Your task to perform on an android device: Turn on the flashlight Image 0: 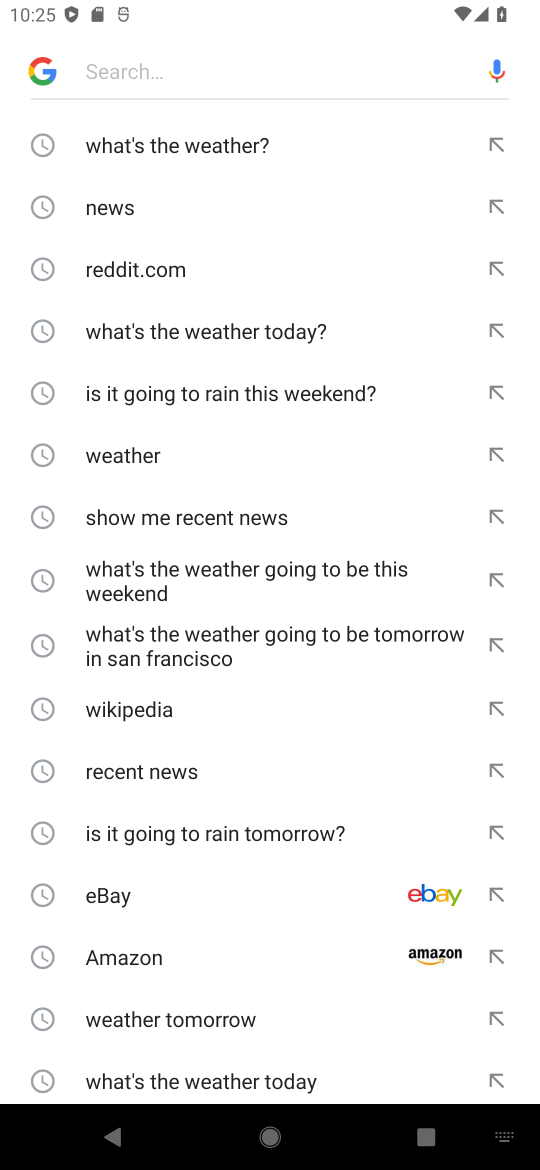
Step 0: press home button
Your task to perform on an android device: Turn on the flashlight Image 1: 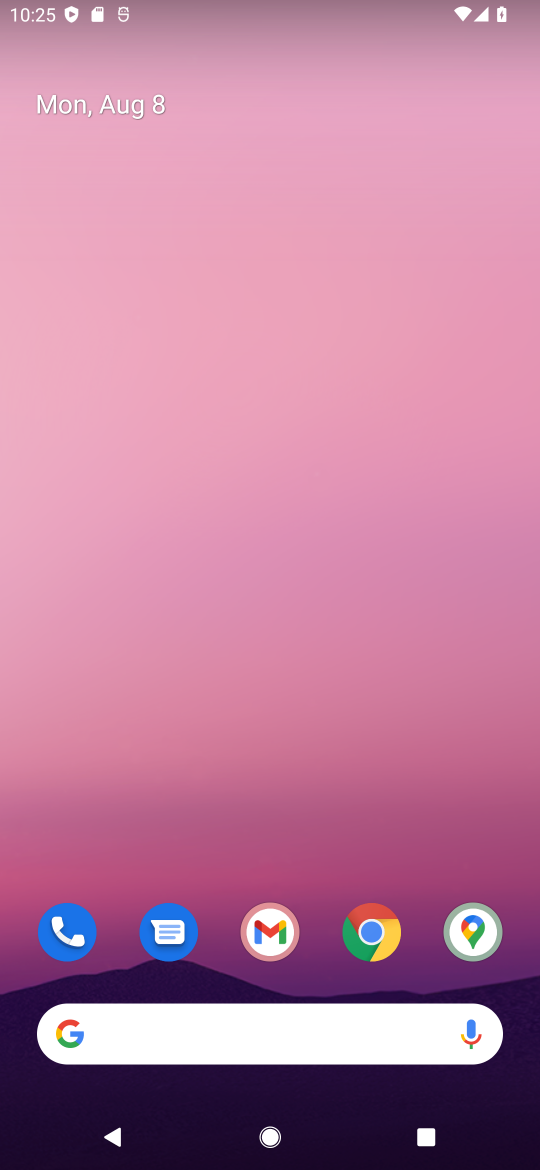
Step 1: drag from (337, 873) to (303, 103)
Your task to perform on an android device: Turn on the flashlight Image 2: 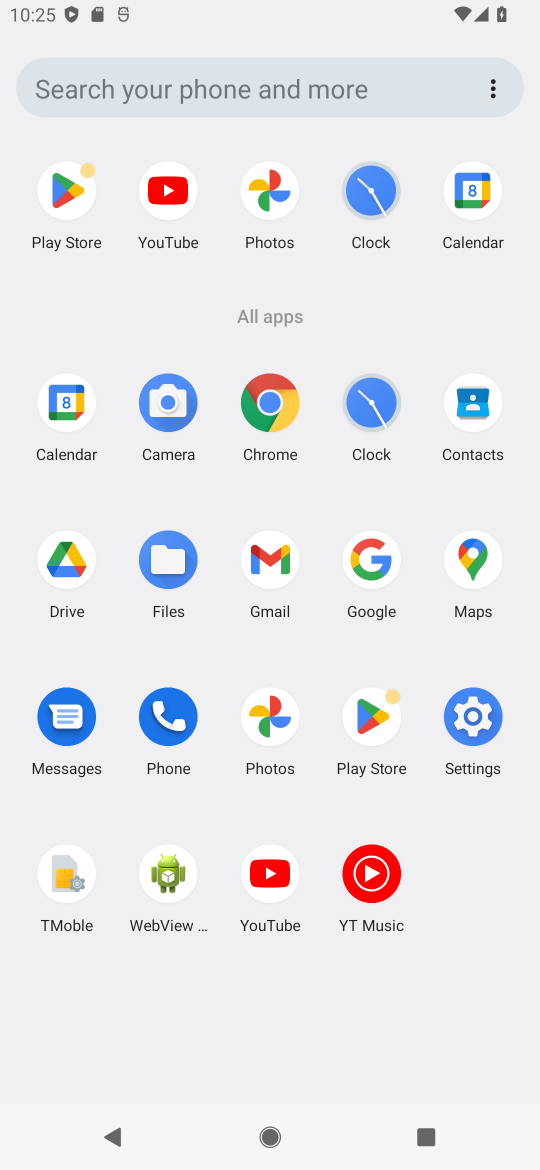
Step 2: click (481, 728)
Your task to perform on an android device: Turn on the flashlight Image 3: 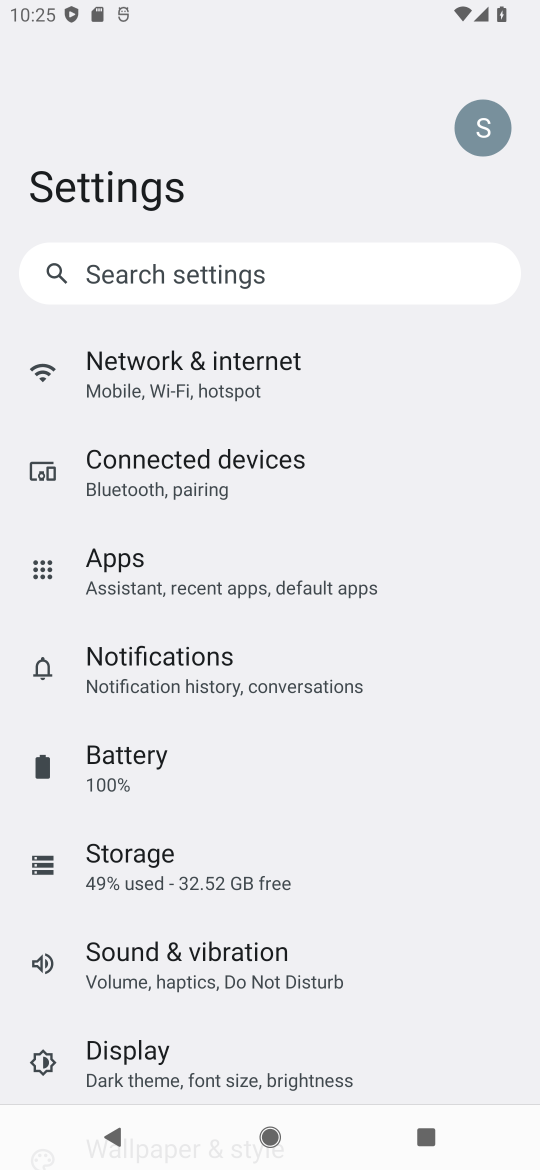
Step 3: task complete